Your task to perform on an android device: clear history in the chrome app Image 0: 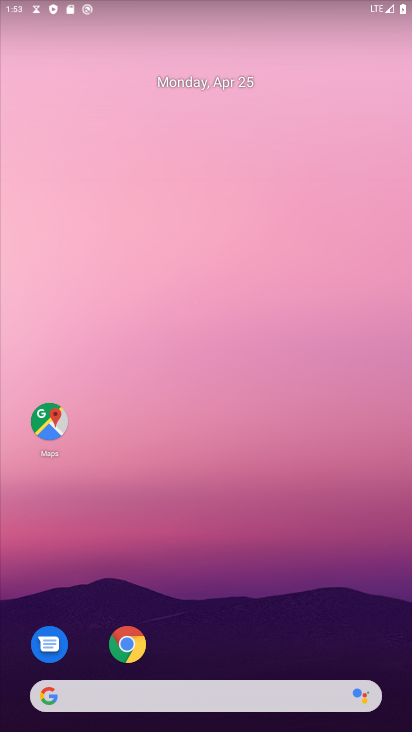
Step 0: click (145, 650)
Your task to perform on an android device: clear history in the chrome app Image 1: 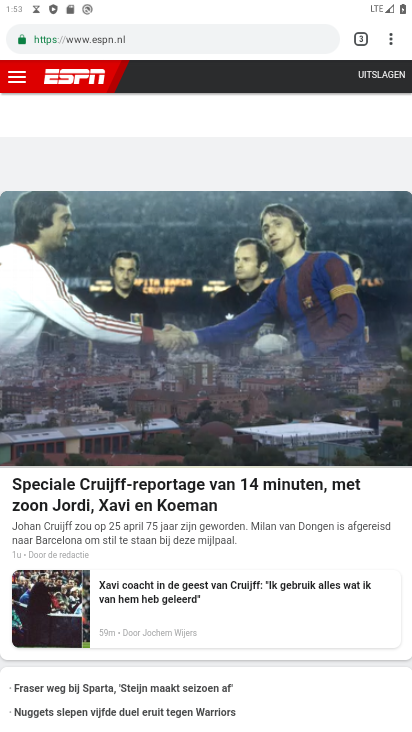
Step 1: click (390, 46)
Your task to perform on an android device: clear history in the chrome app Image 2: 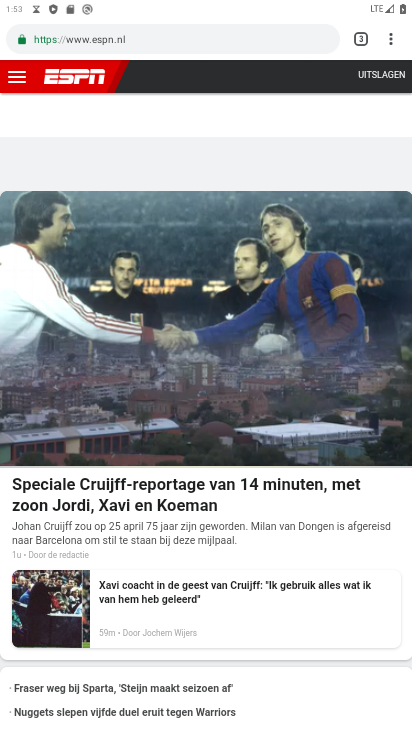
Step 2: drag from (390, 39) to (254, 520)
Your task to perform on an android device: clear history in the chrome app Image 3: 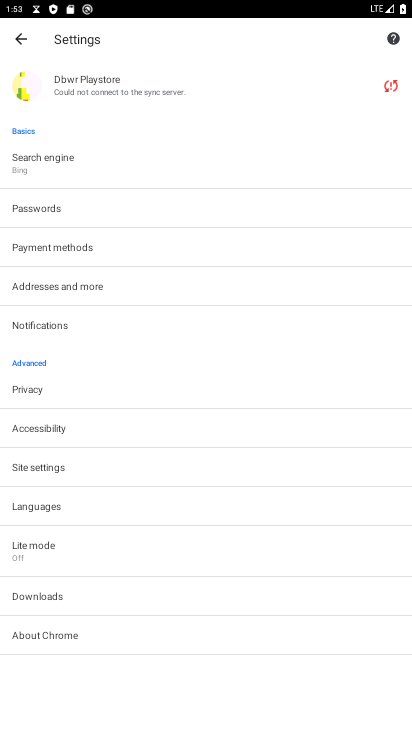
Step 3: click (28, 390)
Your task to perform on an android device: clear history in the chrome app Image 4: 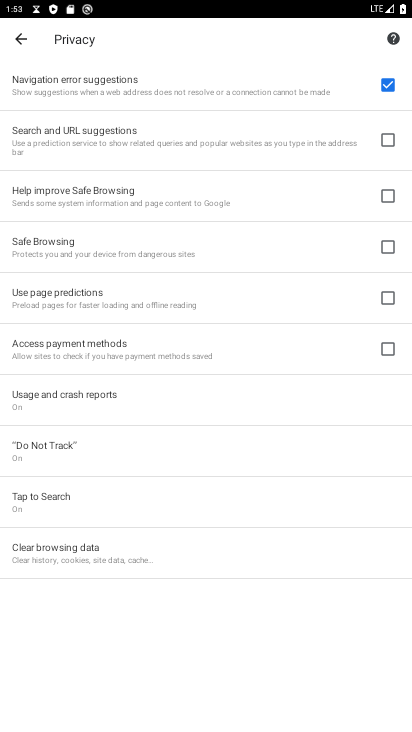
Step 4: click (67, 554)
Your task to perform on an android device: clear history in the chrome app Image 5: 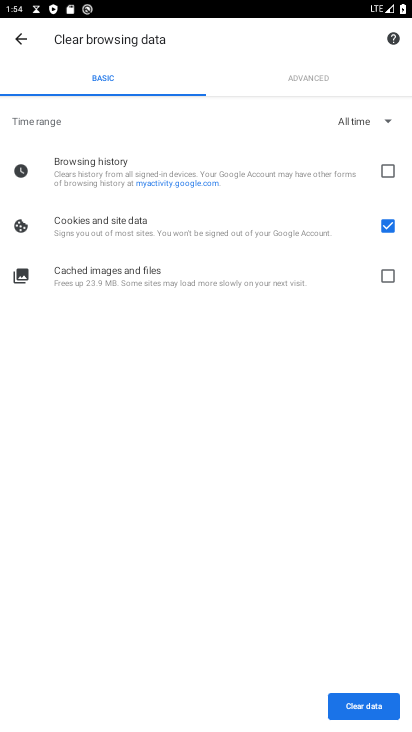
Step 5: click (383, 169)
Your task to perform on an android device: clear history in the chrome app Image 6: 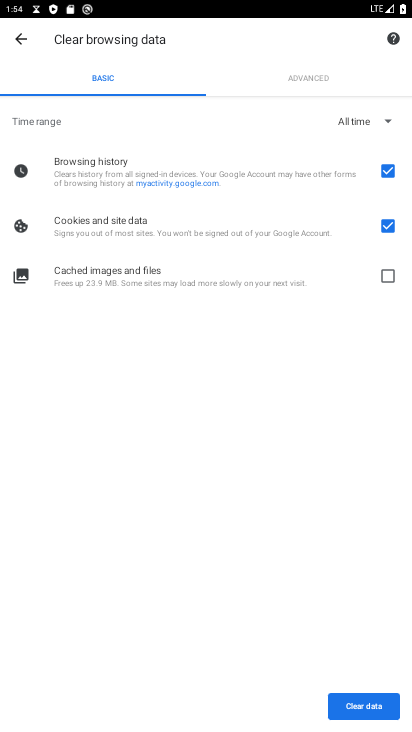
Step 6: click (389, 229)
Your task to perform on an android device: clear history in the chrome app Image 7: 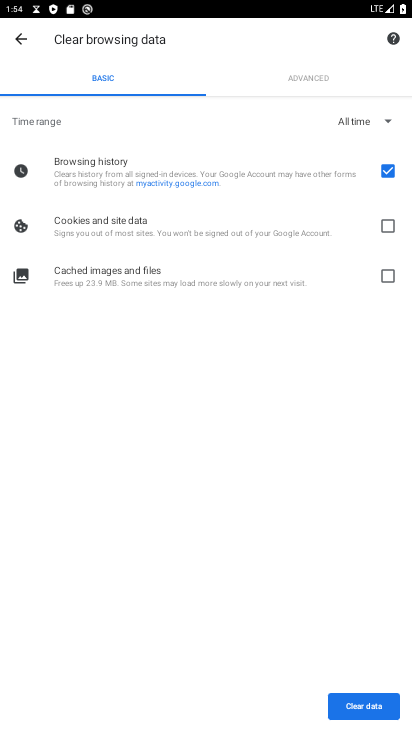
Step 7: click (366, 710)
Your task to perform on an android device: clear history in the chrome app Image 8: 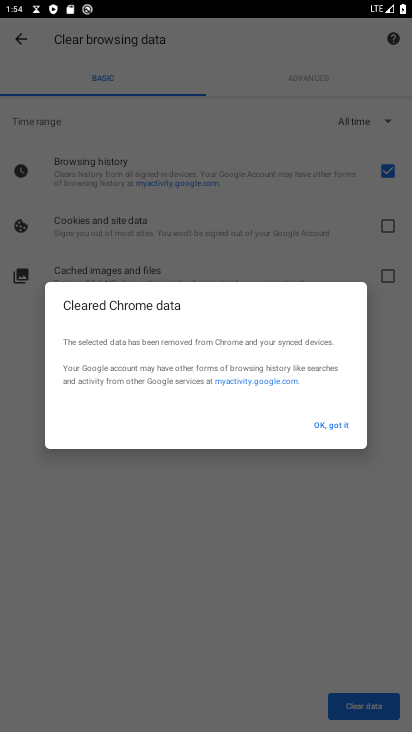
Step 8: click (323, 426)
Your task to perform on an android device: clear history in the chrome app Image 9: 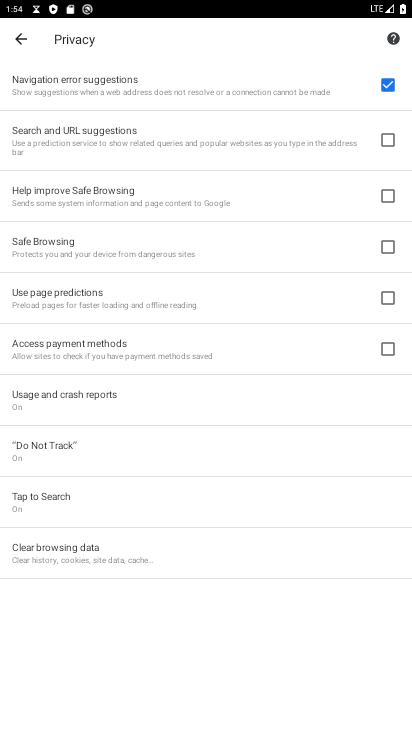
Step 9: task complete